Your task to perform on an android device: turn pop-ups off in chrome Image 0: 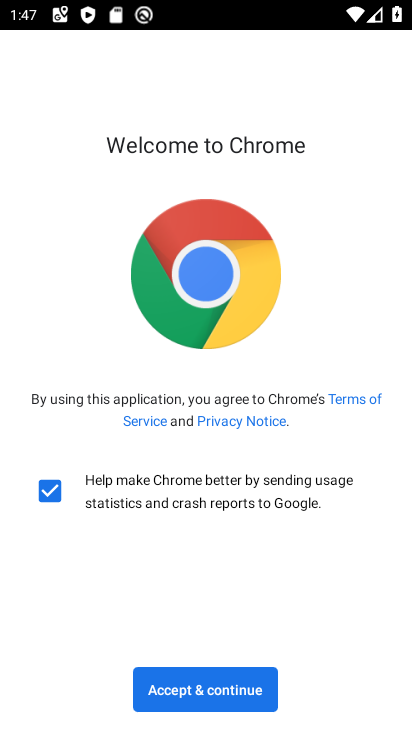
Step 0: click (236, 698)
Your task to perform on an android device: turn pop-ups off in chrome Image 1: 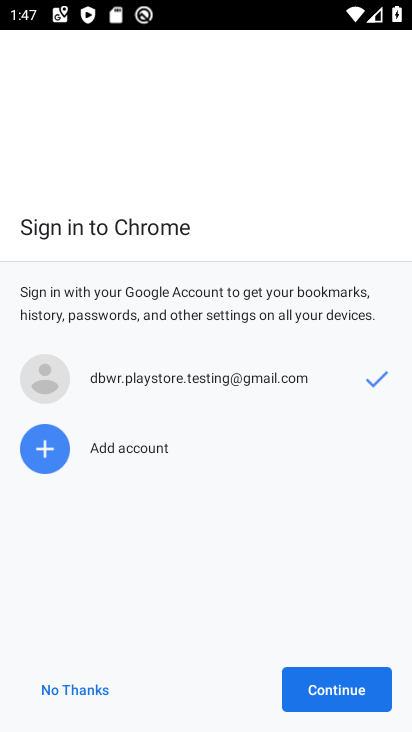
Step 1: click (323, 683)
Your task to perform on an android device: turn pop-ups off in chrome Image 2: 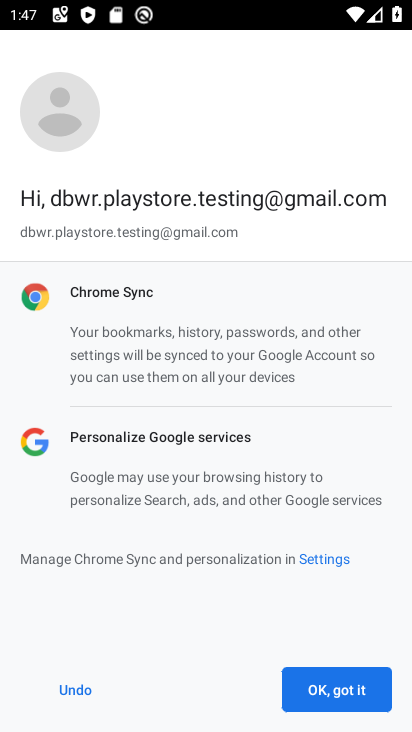
Step 2: click (328, 683)
Your task to perform on an android device: turn pop-ups off in chrome Image 3: 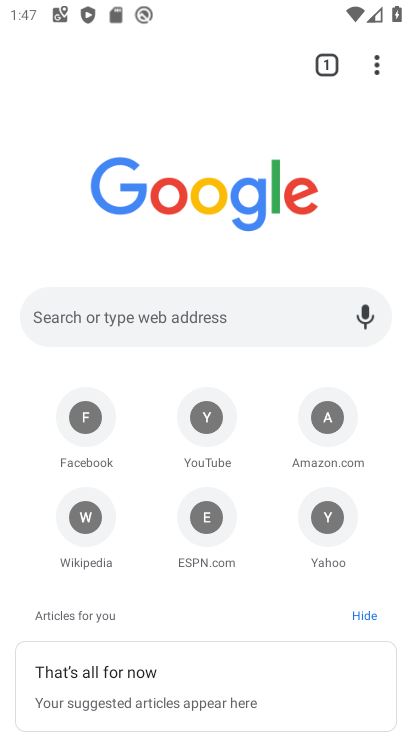
Step 3: drag from (372, 59) to (194, 550)
Your task to perform on an android device: turn pop-ups off in chrome Image 4: 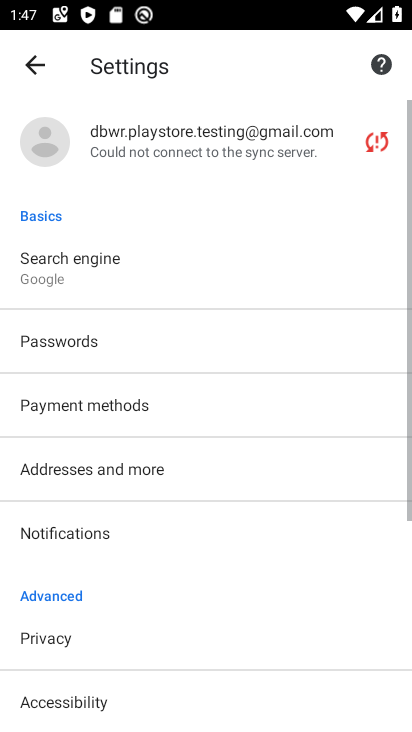
Step 4: drag from (229, 571) to (313, 151)
Your task to perform on an android device: turn pop-ups off in chrome Image 5: 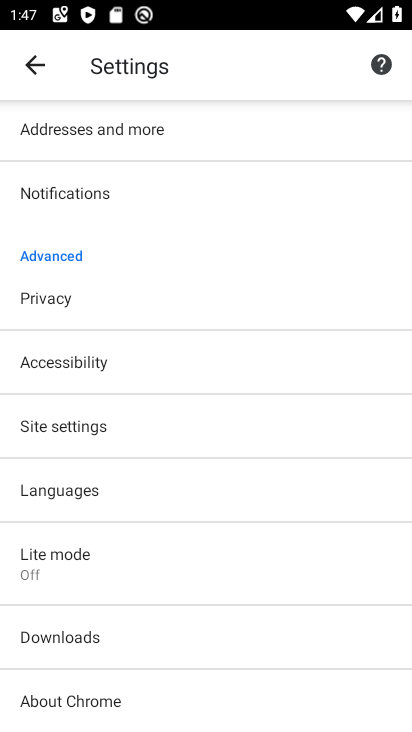
Step 5: click (114, 423)
Your task to perform on an android device: turn pop-ups off in chrome Image 6: 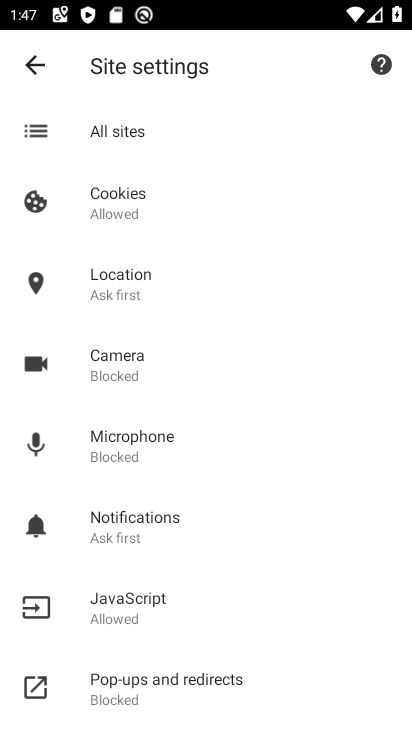
Step 6: drag from (208, 606) to (323, 228)
Your task to perform on an android device: turn pop-ups off in chrome Image 7: 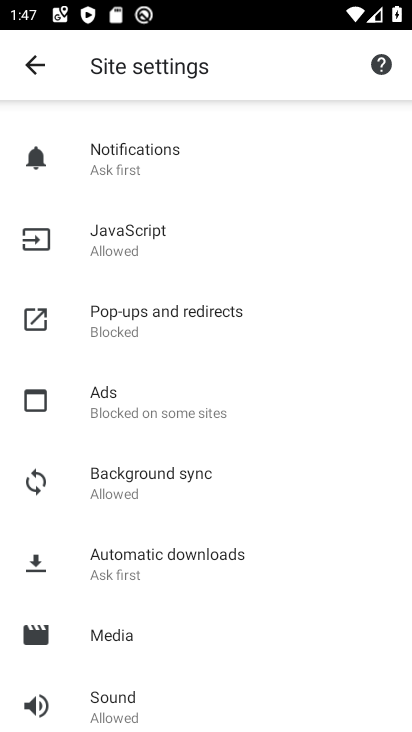
Step 7: click (178, 326)
Your task to perform on an android device: turn pop-ups off in chrome Image 8: 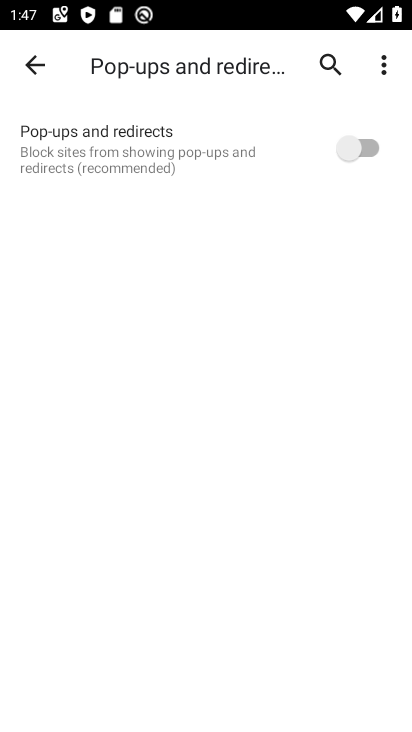
Step 8: task complete